Your task to perform on an android device: star an email in the gmail app Image 0: 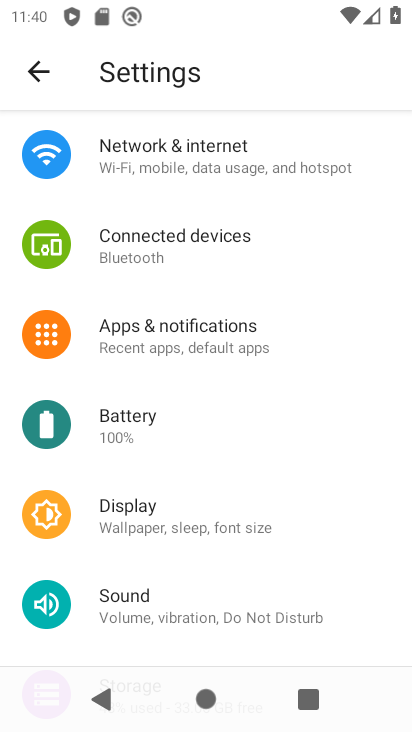
Step 0: press home button
Your task to perform on an android device: star an email in the gmail app Image 1: 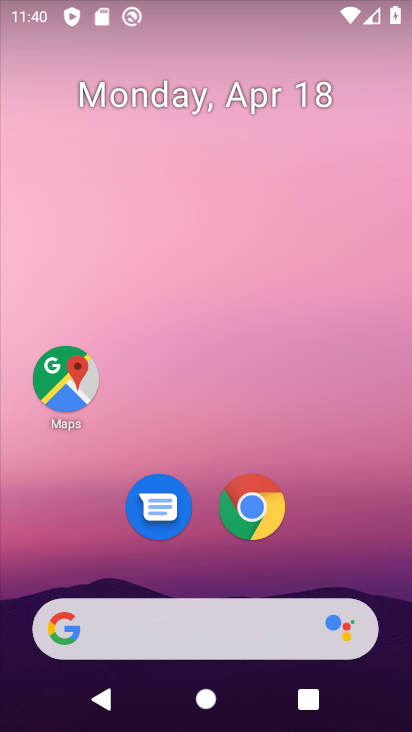
Step 1: drag from (208, 565) to (255, 60)
Your task to perform on an android device: star an email in the gmail app Image 2: 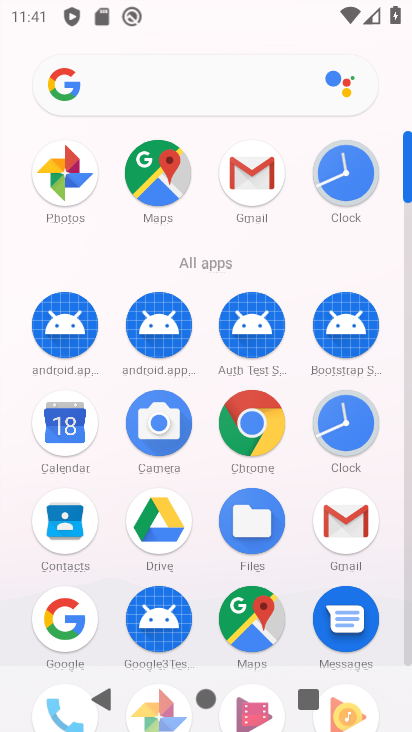
Step 2: click (346, 516)
Your task to perform on an android device: star an email in the gmail app Image 3: 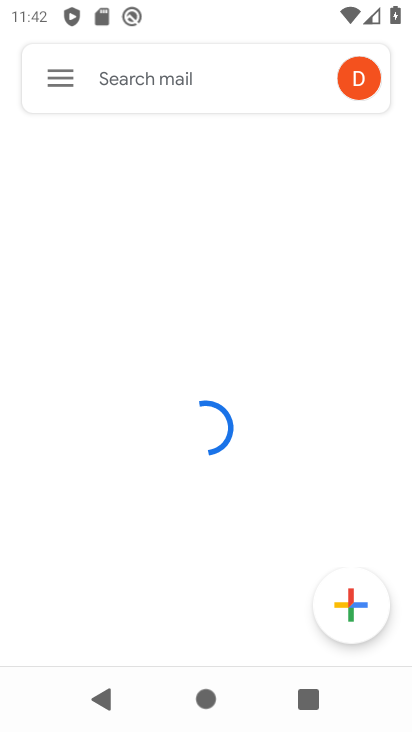
Step 3: click (54, 77)
Your task to perform on an android device: star an email in the gmail app Image 4: 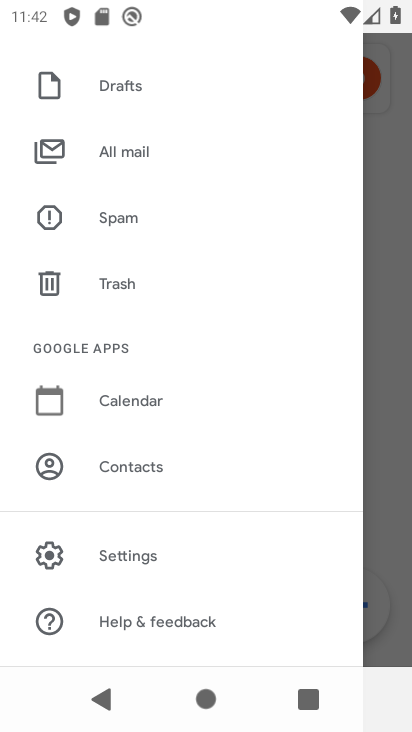
Step 4: click (125, 158)
Your task to perform on an android device: star an email in the gmail app Image 5: 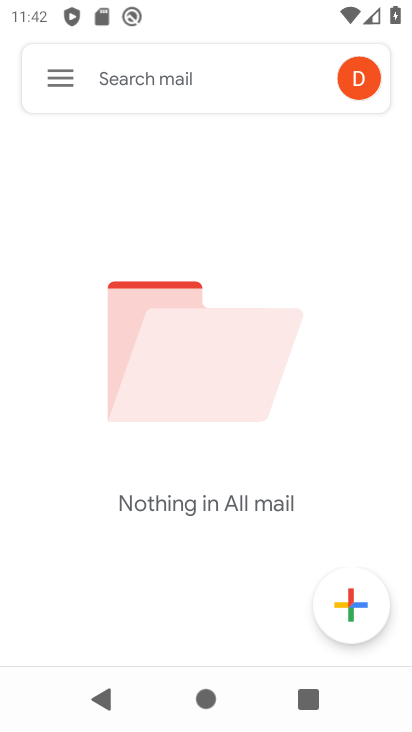
Step 5: task complete